Your task to perform on an android device: check out phone information Image 0: 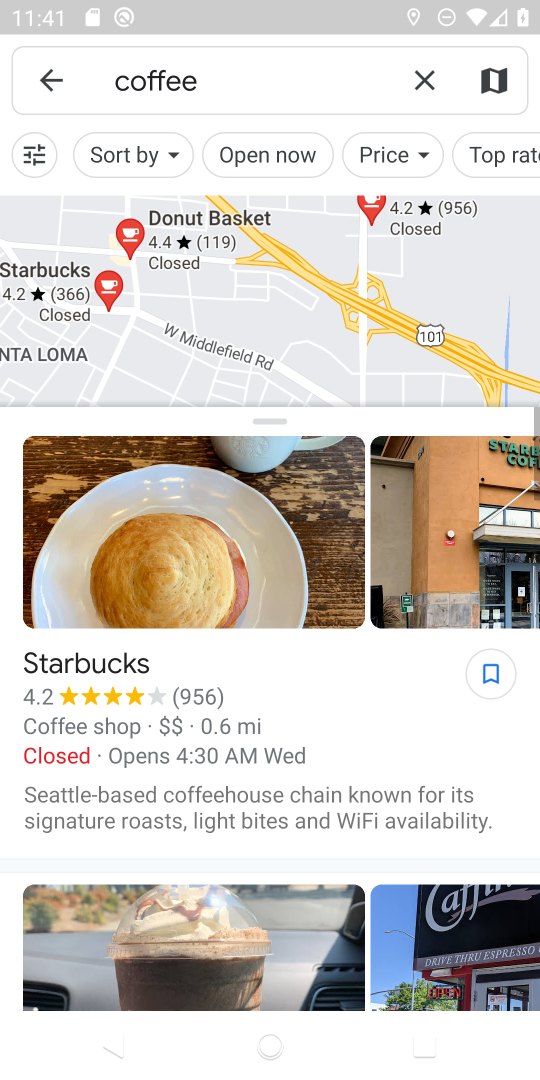
Step 0: press home button
Your task to perform on an android device: check out phone information Image 1: 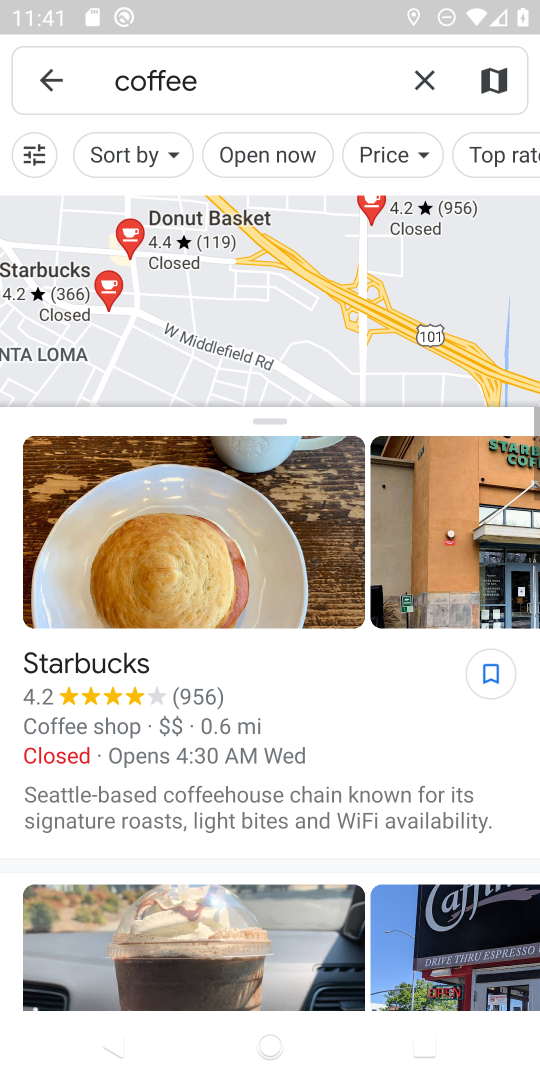
Step 1: click (492, 759)
Your task to perform on an android device: check out phone information Image 2: 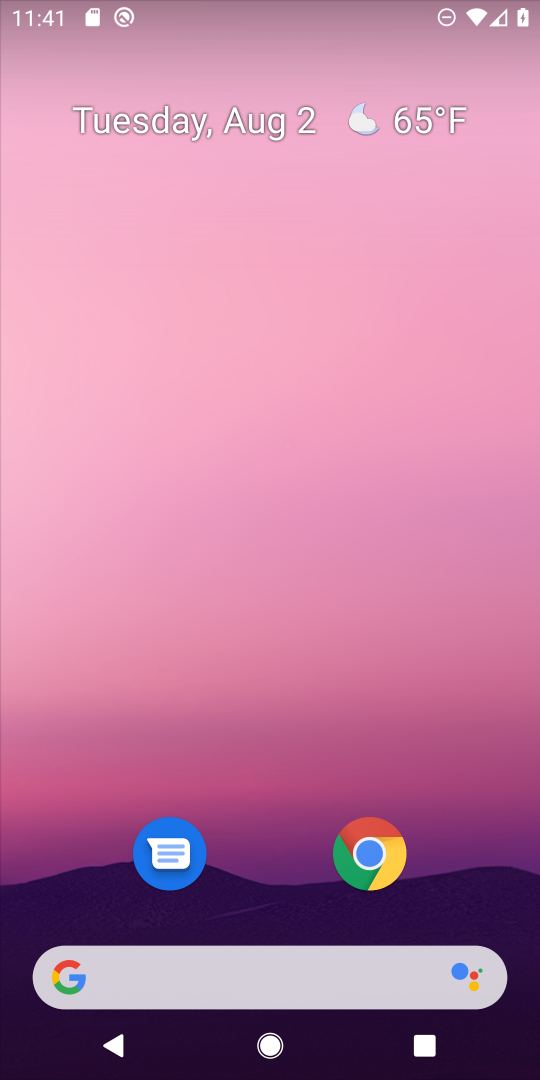
Step 2: drag from (299, 865) to (116, 183)
Your task to perform on an android device: check out phone information Image 3: 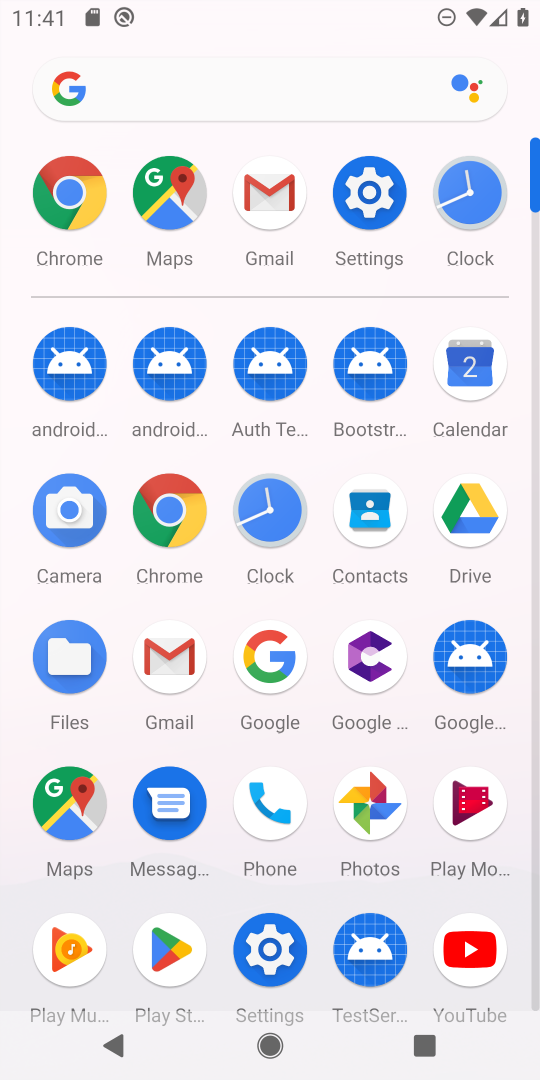
Step 3: click (262, 800)
Your task to perform on an android device: check out phone information Image 4: 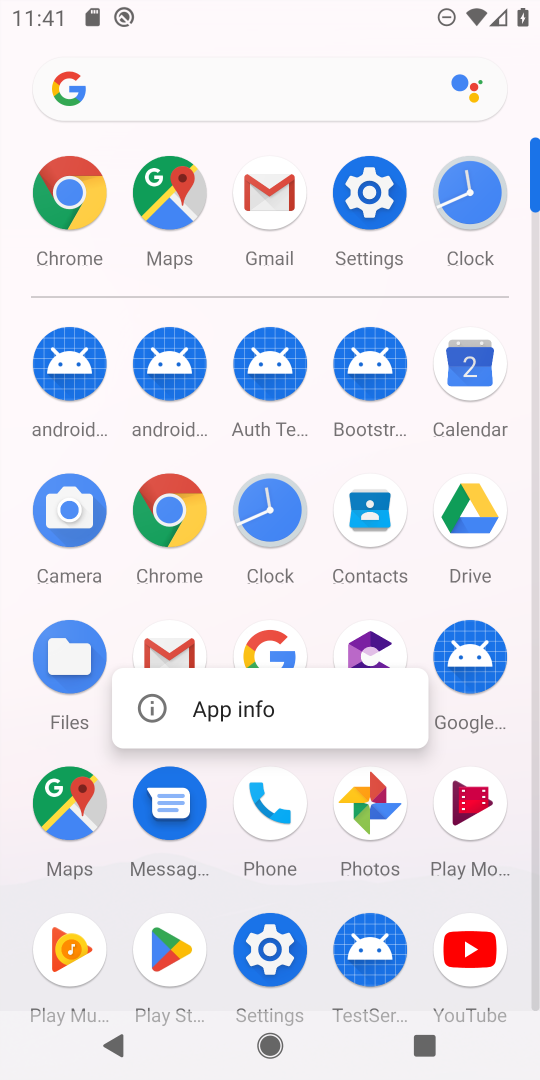
Step 4: click (270, 725)
Your task to perform on an android device: check out phone information Image 5: 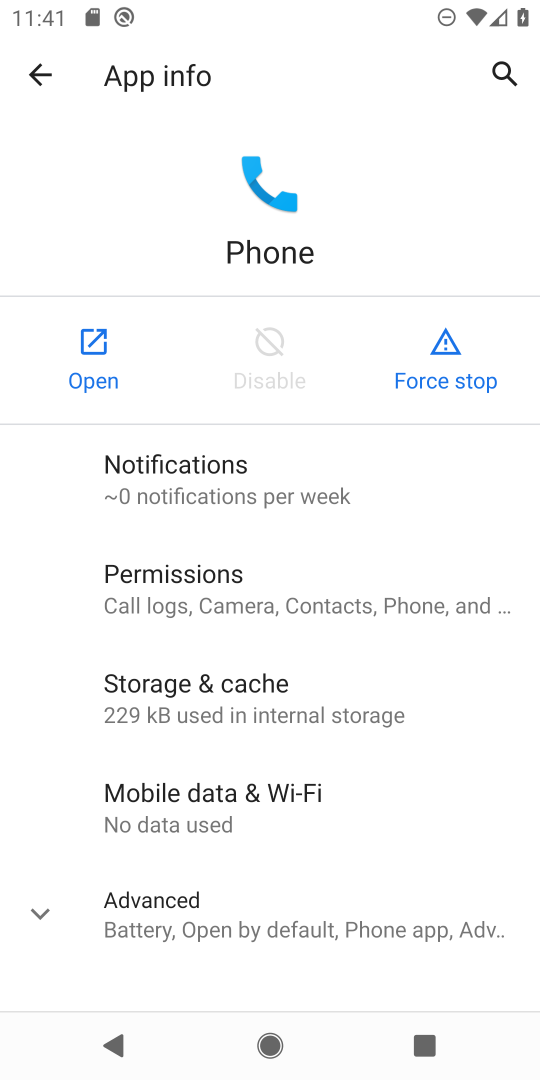
Step 5: task complete